Your task to perform on an android device: Turn on the flashlight Image 0: 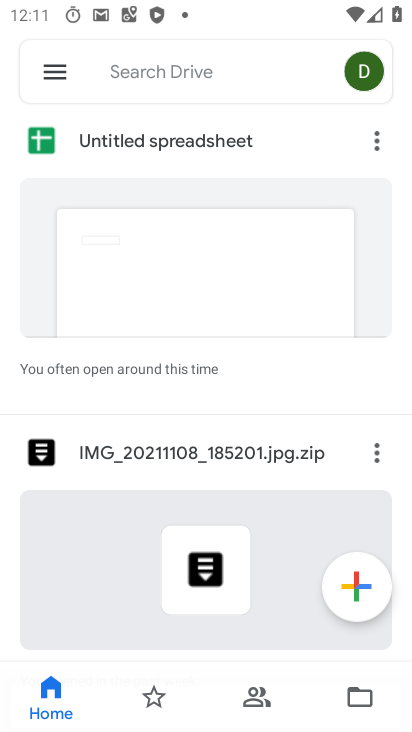
Step 0: press home button
Your task to perform on an android device: Turn on the flashlight Image 1: 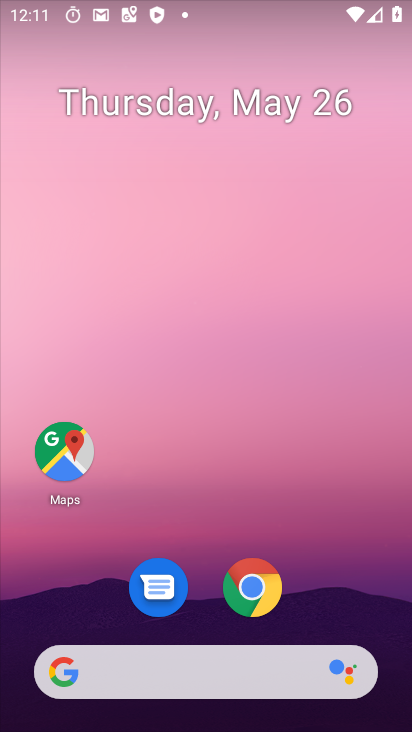
Step 1: drag from (278, 686) to (349, 159)
Your task to perform on an android device: Turn on the flashlight Image 2: 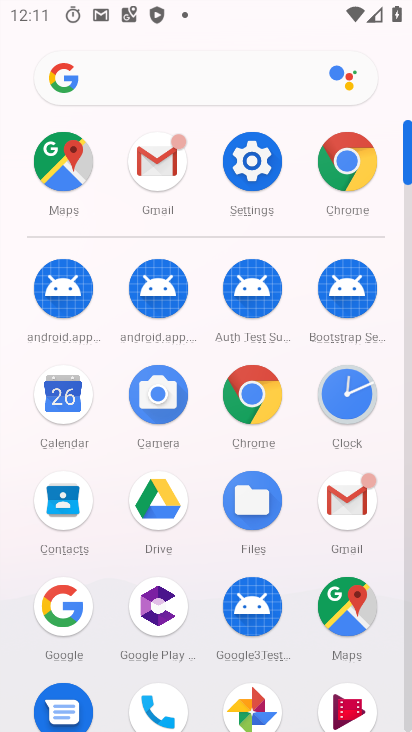
Step 2: click (240, 172)
Your task to perform on an android device: Turn on the flashlight Image 3: 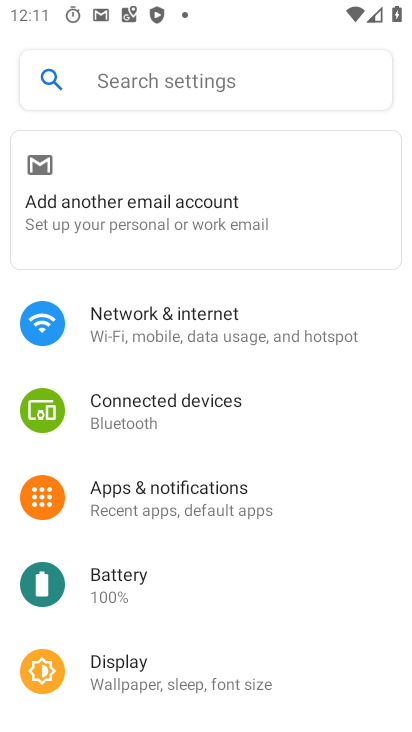
Step 3: click (162, 73)
Your task to perform on an android device: Turn on the flashlight Image 4: 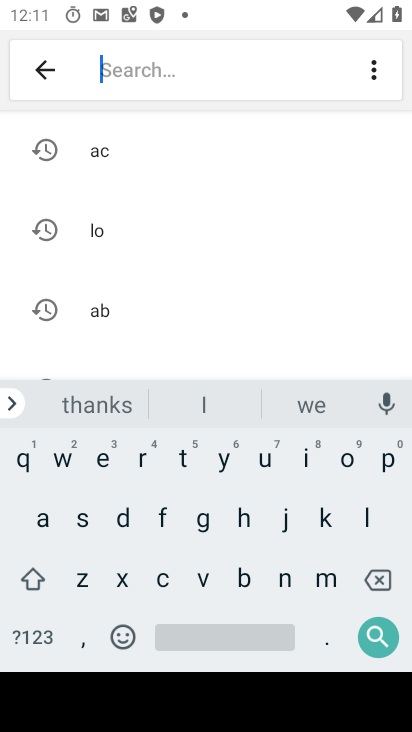
Step 4: click (162, 516)
Your task to perform on an android device: Turn on the flashlight Image 5: 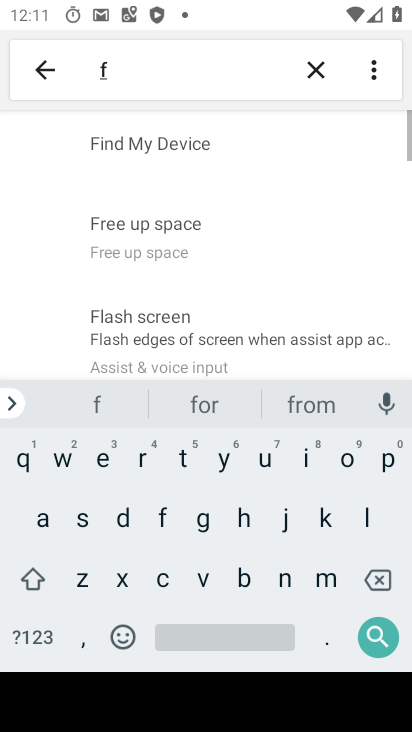
Step 5: click (362, 520)
Your task to perform on an android device: Turn on the flashlight Image 6: 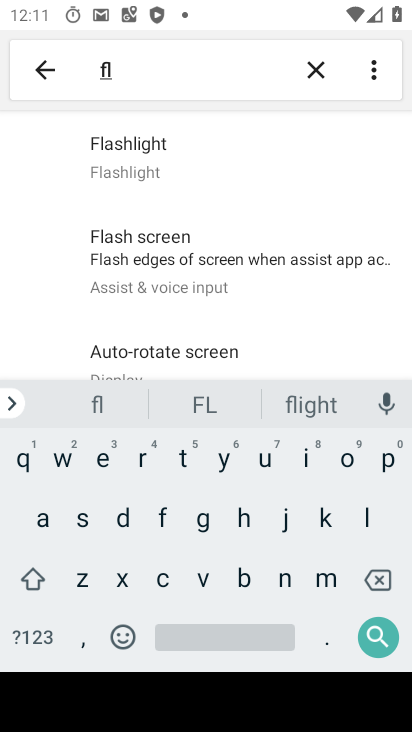
Step 6: click (205, 164)
Your task to perform on an android device: Turn on the flashlight Image 7: 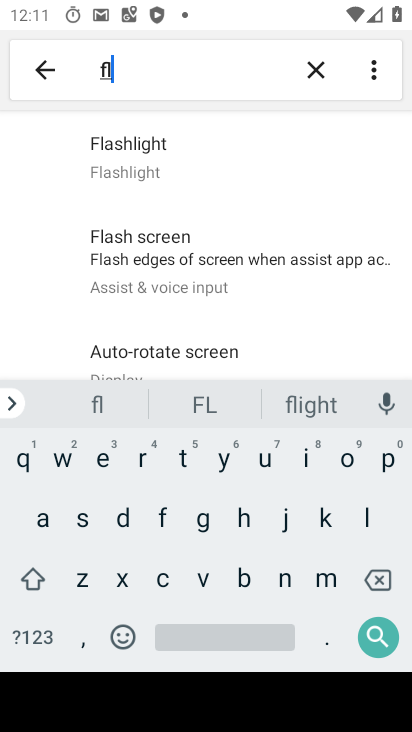
Step 7: click (135, 153)
Your task to perform on an android device: Turn on the flashlight Image 8: 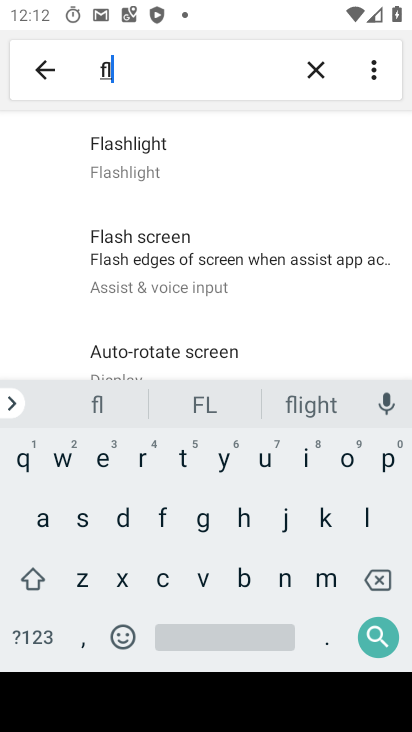
Step 8: task complete